Your task to perform on an android device: Do I have any events tomorrow? Image 0: 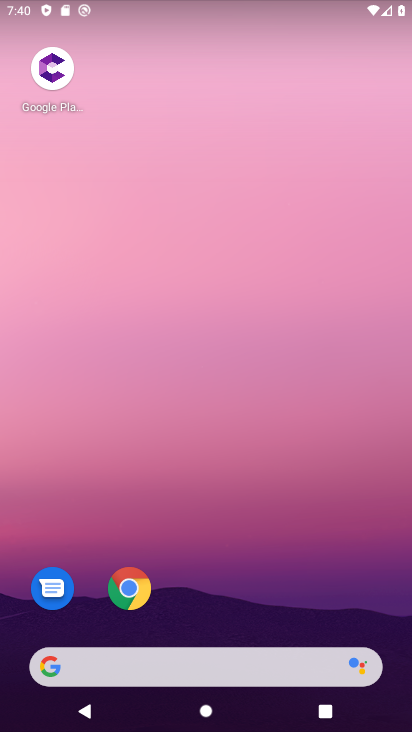
Step 0: drag from (287, 710) to (284, 104)
Your task to perform on an android device: Do I have any events tomorrow? Image 1: 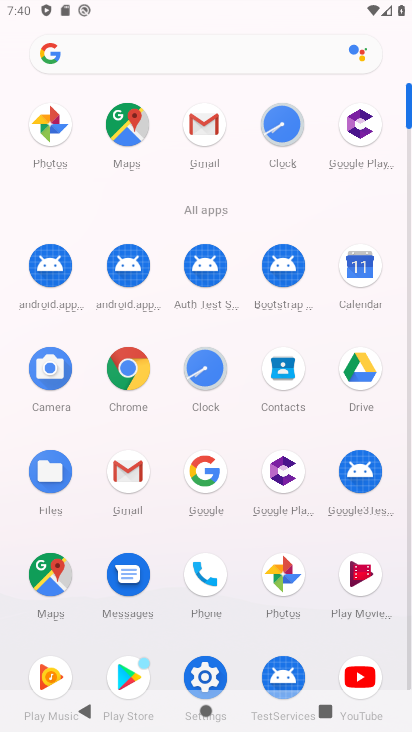
Step 1: click (389, 255)
Your task to perform on an android device: Do I have any events tomorrow? Image 2: 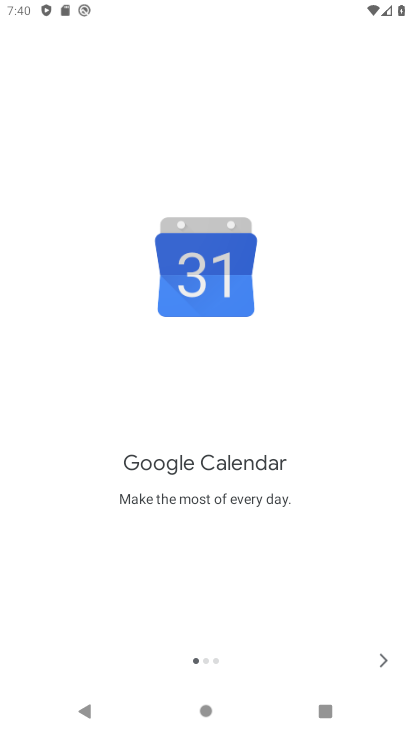
Step 2: click (378, 659)
Your task to perform on an android device: Do I have any events tomorrow? Image 3: 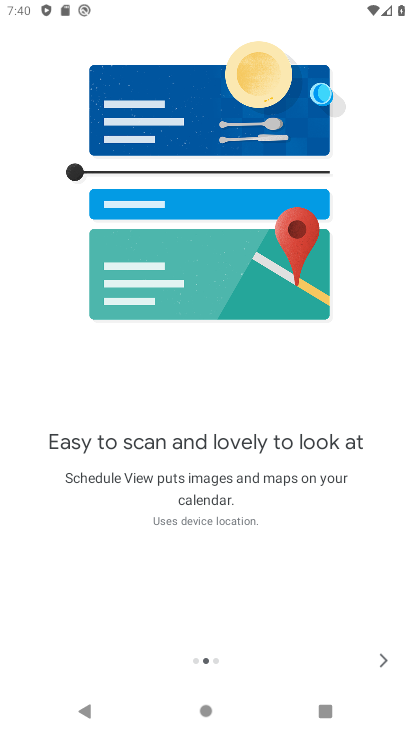
Step 3: click (390, 657)
Your task to perform on an android device: Do I have any events tomorrow? Image 4: 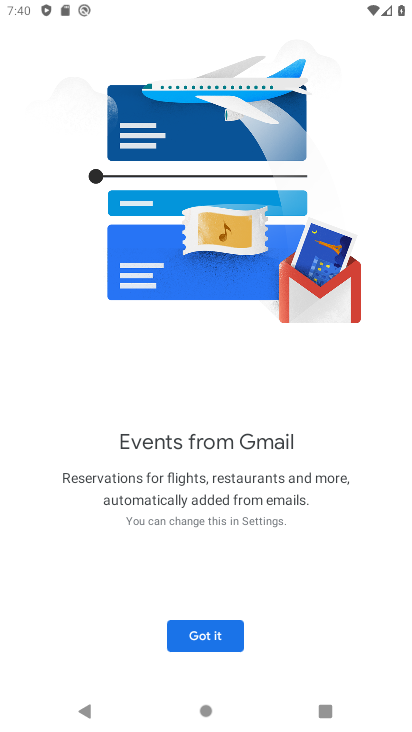
Step 4: click (197, 637)
Your task to perform on an android device: Do I have any events tomorrow? Image 5: 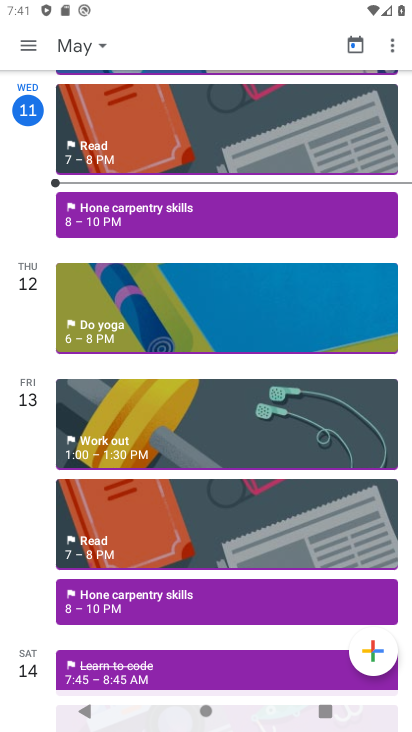
Step 5: task complete